Your task to perform on an android device: What is the news today? Image 0: 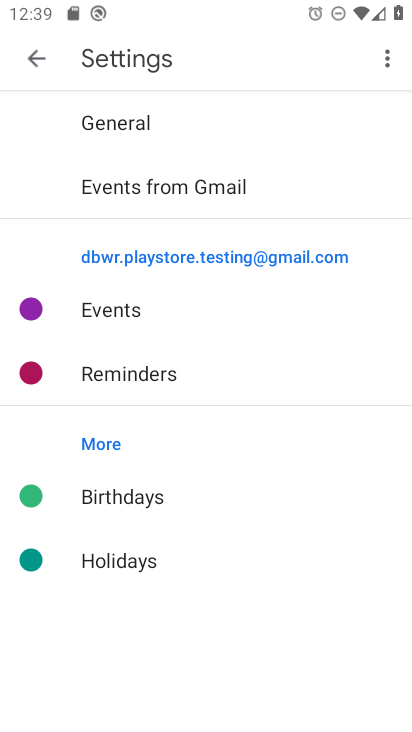
Step 0: press home button
Your task to perform on an android device: What is the news today? Image 1: 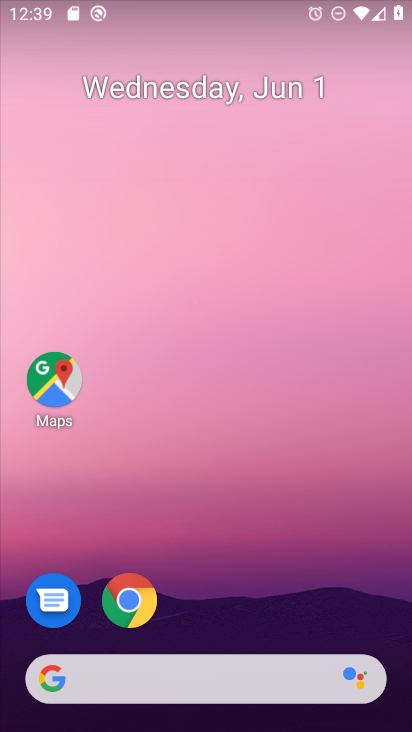
Step 1: task complete